Your task to perform on an android device: turn off notifications settings in the gmail app Image 0: 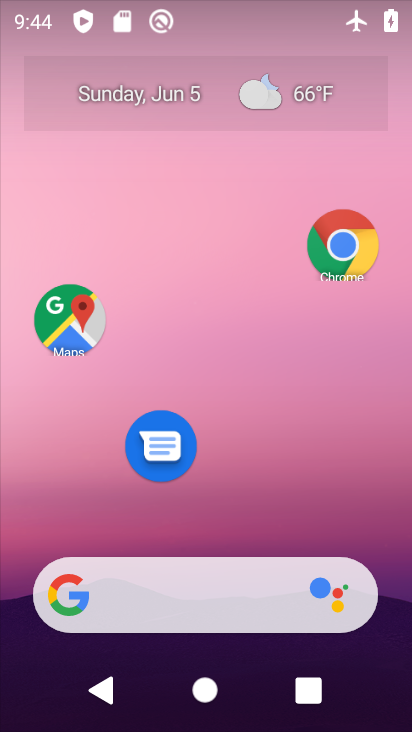
Step 0: drag from (210, 511) to (205, 195)
Your task to perform on an android device: turn off notifications settings in the gmail app Image 1: 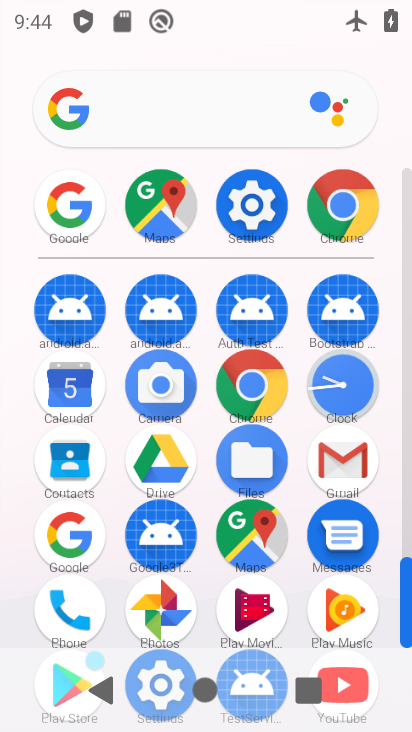
Step 1: drag from (195, 502) to (210, 257)
Your task to perform on an android device: turn off notifications settings in the gmail app Image 2: 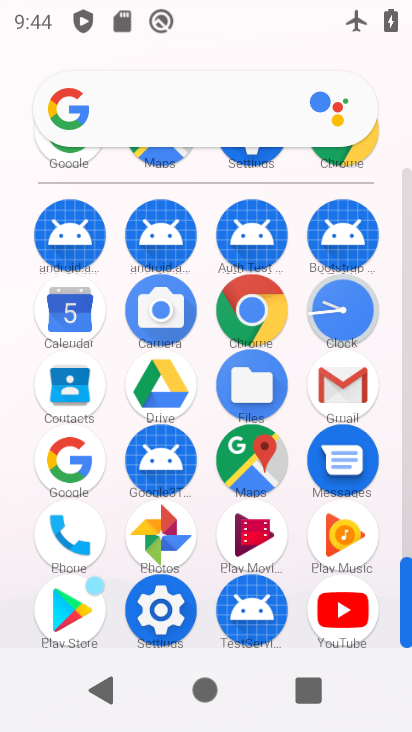
Step 2: click (335, 370)
Your task to perform on an android device: turn off notifications settings in the gmail app Image 3: 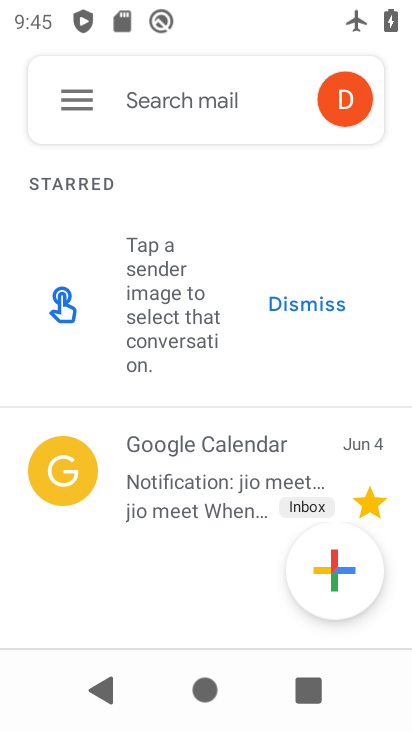
Step 3: click (61, 114)
Your task to perform on an android device: turn off notifications settings in the gmail app Image 4: 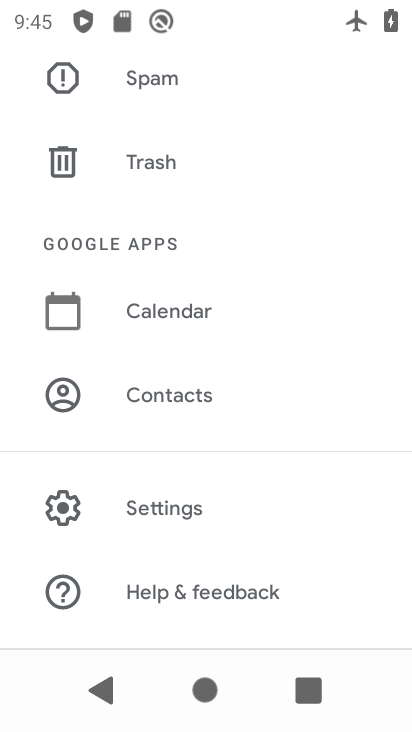
Step 4: drag from (178, 588) to (184, 367)
Your task to perform on an android device: turn off notifications settings in the gmail app Image 5: 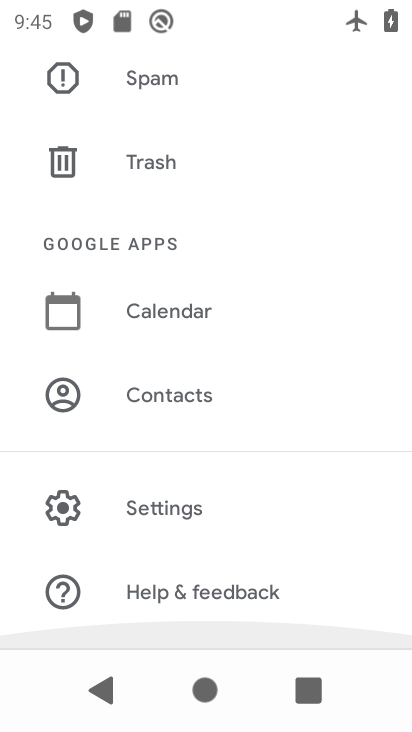
Step 5: click (156, 497)
Your task to perform on an android device: turn off notifications settings in the gmail app Image 6: 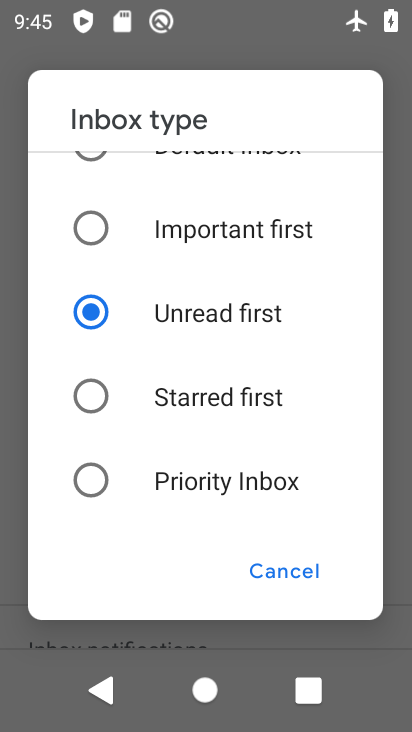
Step 6: click (259, 576)
Your task to perform on an android device: turn off notifications settings in the gmail app Image 7: 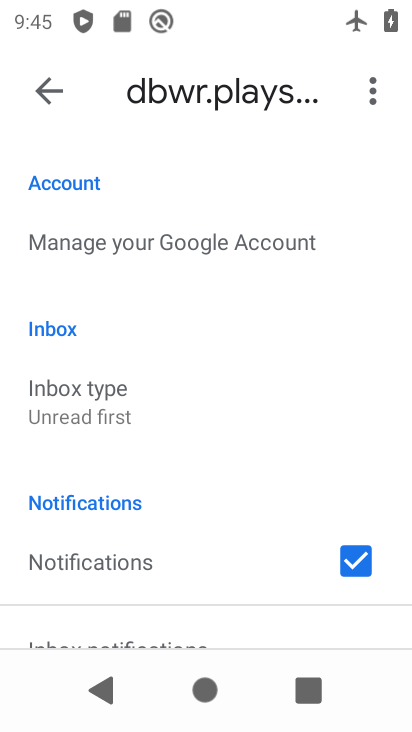
Step 7: drag from (178, 503) to (170, 252)
Your task to perform on an android device: turn off notifications settings in the gmail app Image 8: 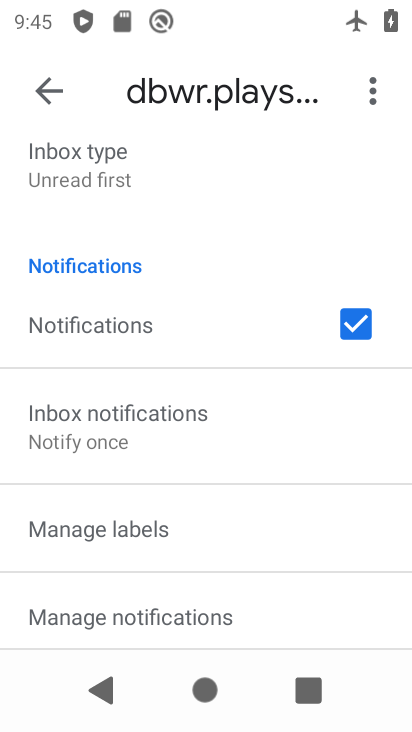
Step 8: click (138, 594)
Your task to perform on an android device: turn off notifications settings in the gmail app Image 9: 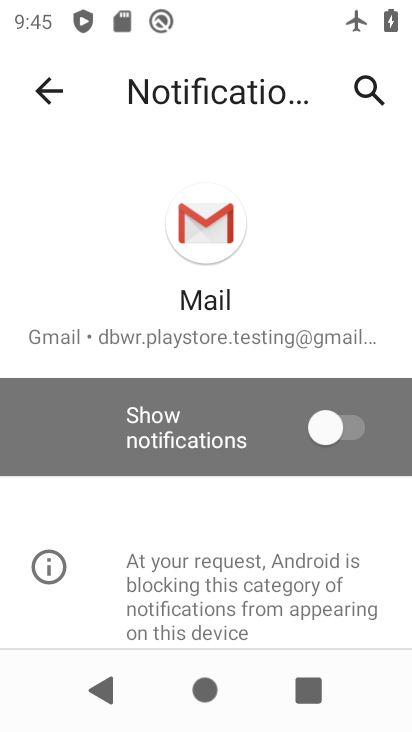
Step 9: task complete